Your task to perform on an android device: open wifi settings Image 0: 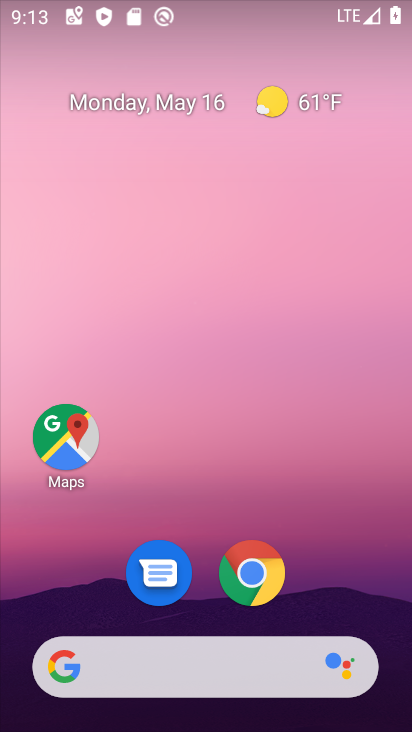
Step 0: drag from (192, 724) to (215, 168)
Your task to perform on an android device: open wifi settings Image 1: 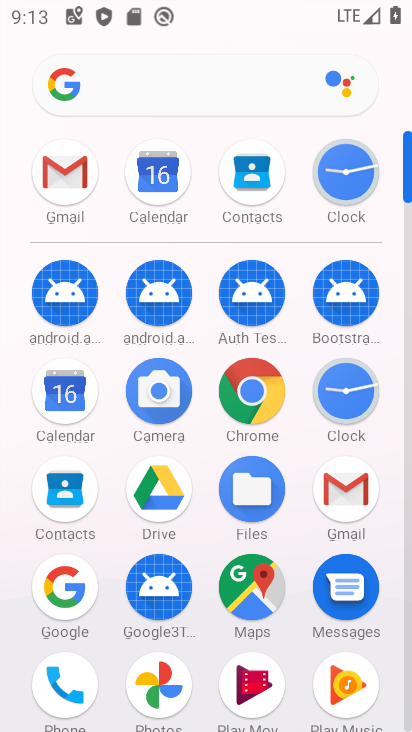
Step 1: drag from (190, 661) to (231, 237)
Your task to perform on an android device: open wifi settings Image 2: 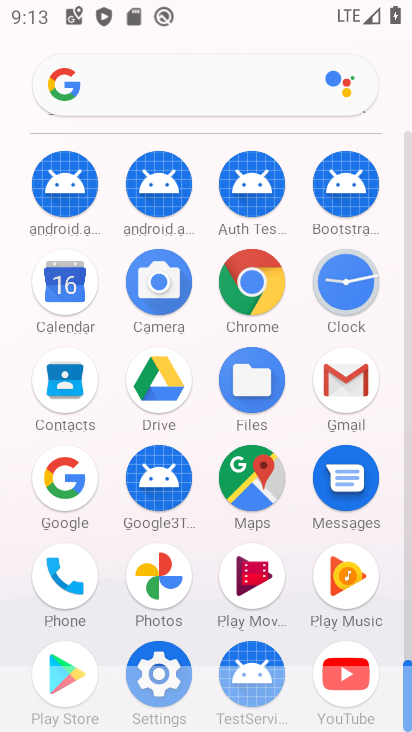
Step 2: click (164, 653)
Your task to perform on an android device: open wifi settings Image 3: 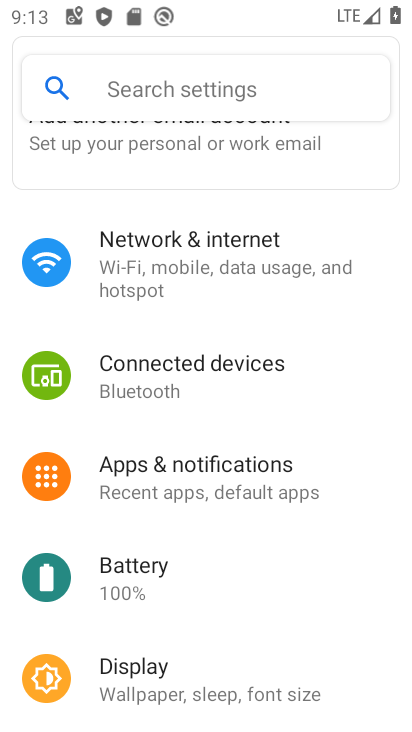
Step 3: click (160, 263)
Your task to perform on an android device: open wifi settings Image 4: 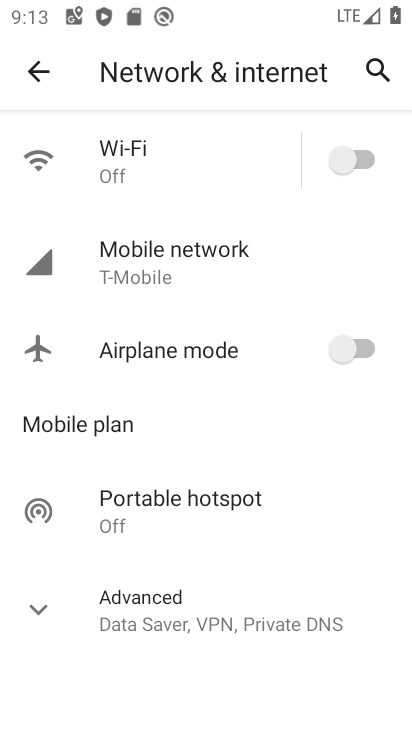
Step 4: click (110, 154)
Your task to perform on an android device: open wifi settings Image 5: 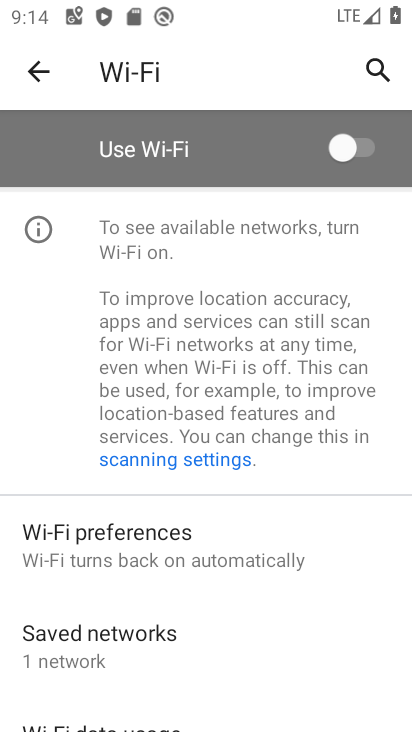
Step 5: task complete